Your task to perform on an android device: empty trash in google photos Image 0: 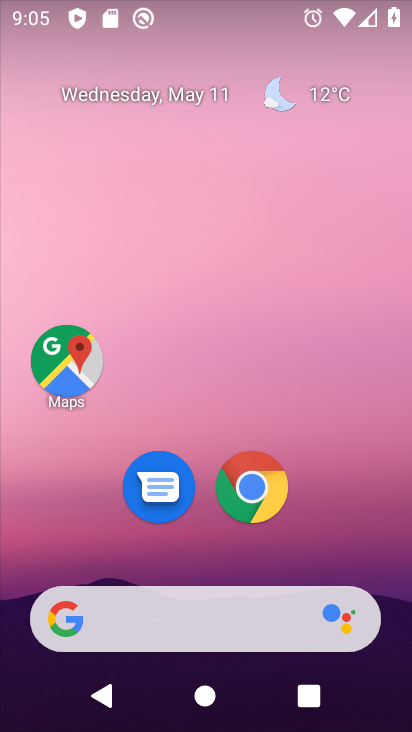
Step 0: drag from (60, 566) to (187, 148)
Your task to perform on an android device: empty trash in google photos Image 1: 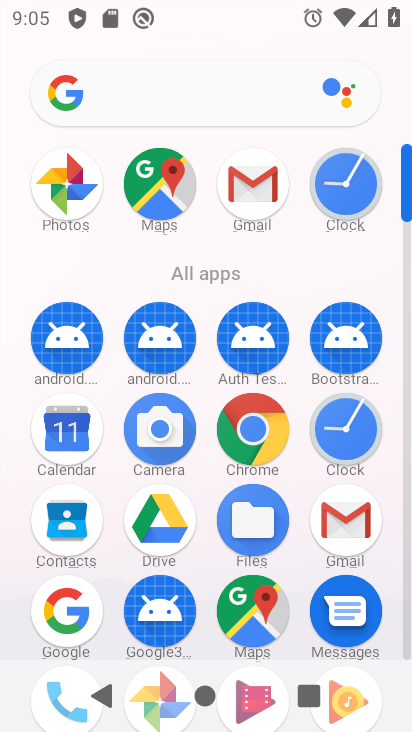
Step 1: drag from (171, 674) to (209, 483)
Your task to perform on an android device: empty trash in google photos Image 2: 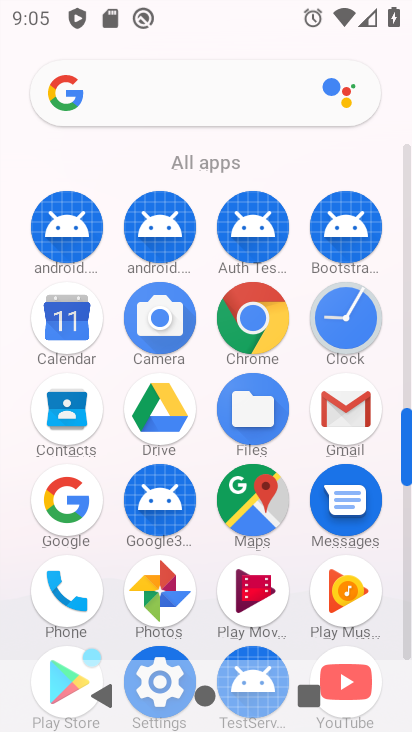
Step 2: click (159, 594)
Your task to perform on an android device: empty trash in google photos Image 3: 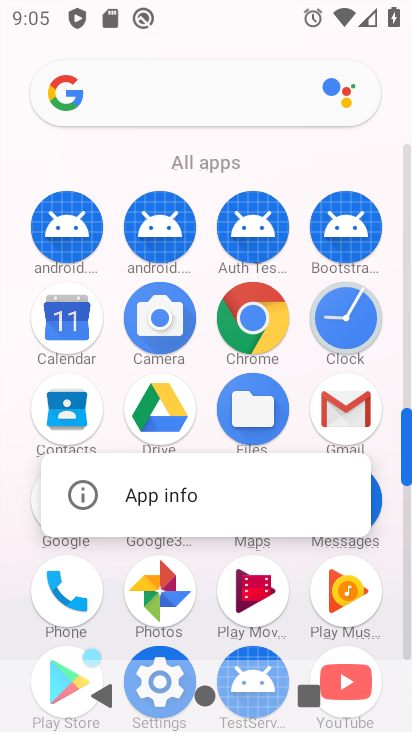
Step 3: click (159, 590)
Your task to perform on an android device: empty trash in google photos Image 4: 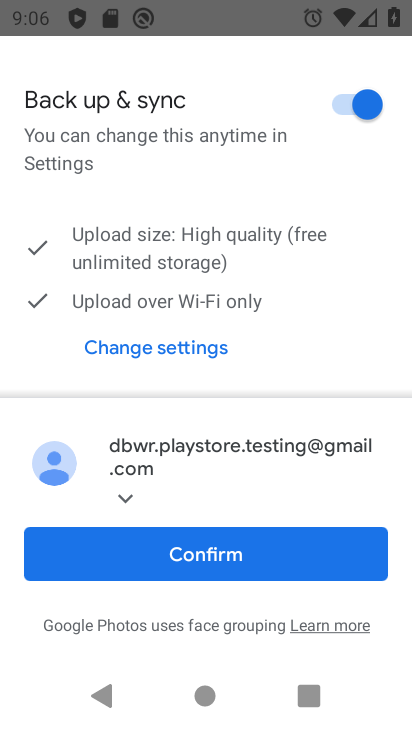
Step 4: click (217, 566)
Your task to perform on an android device: empty trash in google photos Image 5: 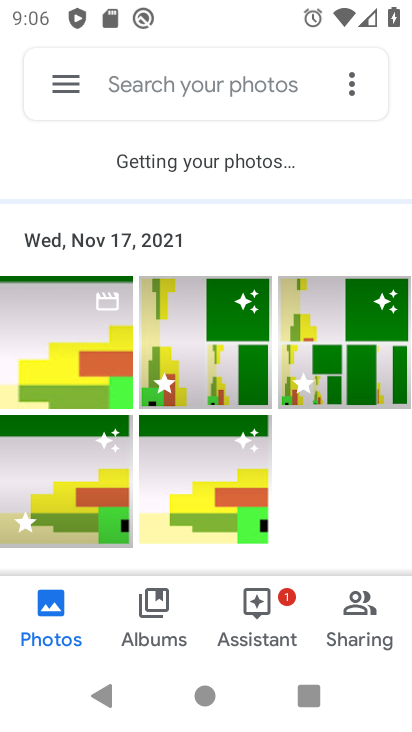
Step 5: click (63, 81)
Your task to perform on an android device: empty trash in google photos Image 6: 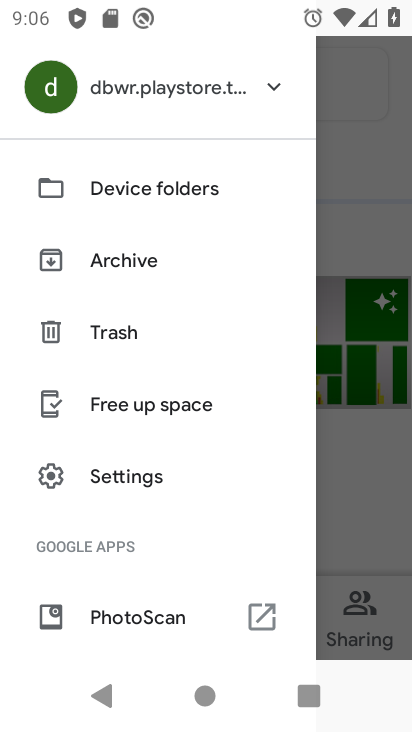
Step 6: click (124, 344)
Your task to perform on an android device: empty trash in google photos Image 7: 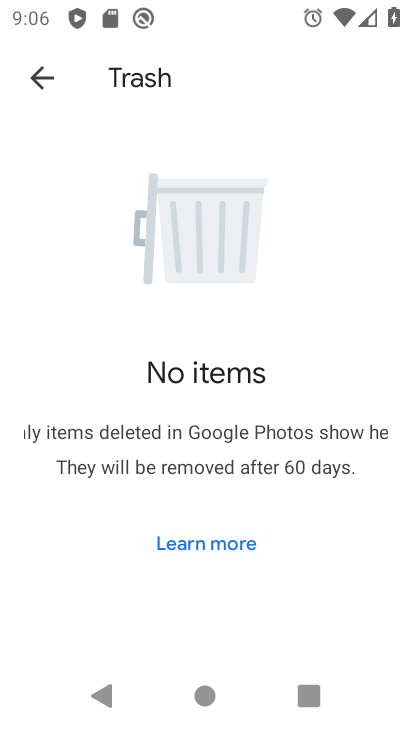
Step 7: task complete